Your task to perform on an android device: change text size in settings app Image 0: 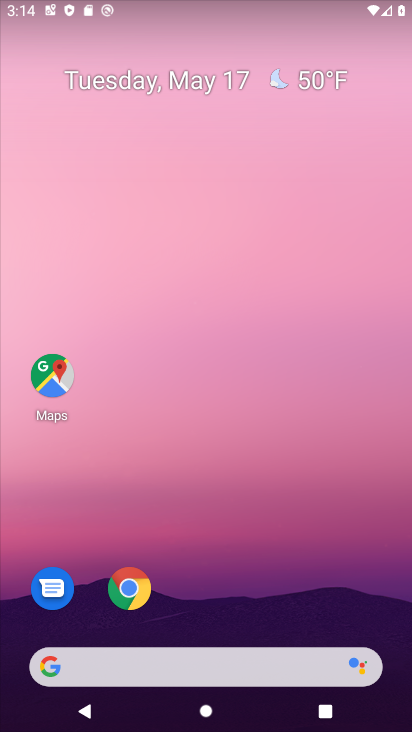
Step 0: drag from (211, 628) to (329, 107)
Your task to perform on an android device: change text size in settings app Image 1: 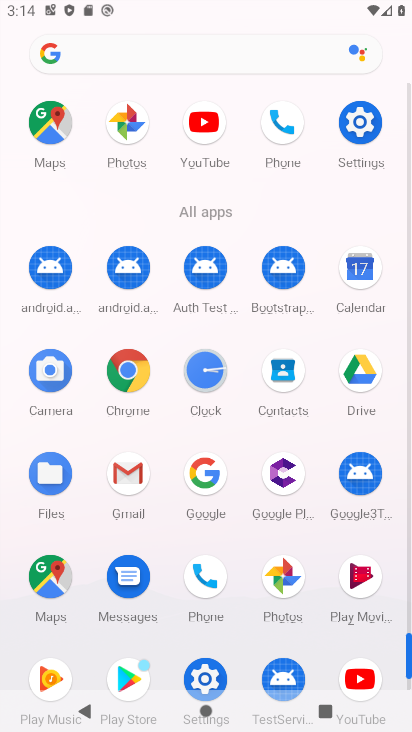
Step 1: drag from (213, 534) to (256, 306)
Your task to perform on an android device: change text size in settings app Image 2: 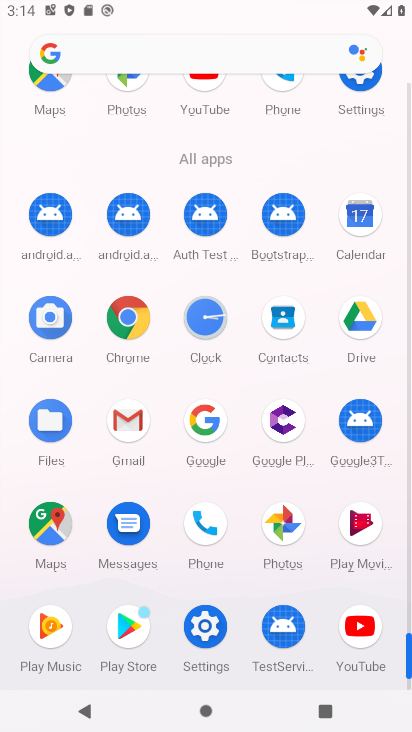
Step 2: click (202, 638)
Your task to perform on an android device: change text size in settings app Image 3: 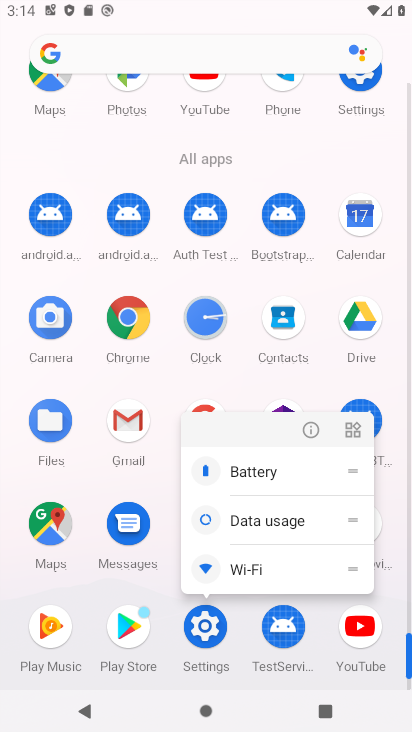
Step 3: click (204, 620)
Your task to perform on an android device: change text size in settings app Image 4: 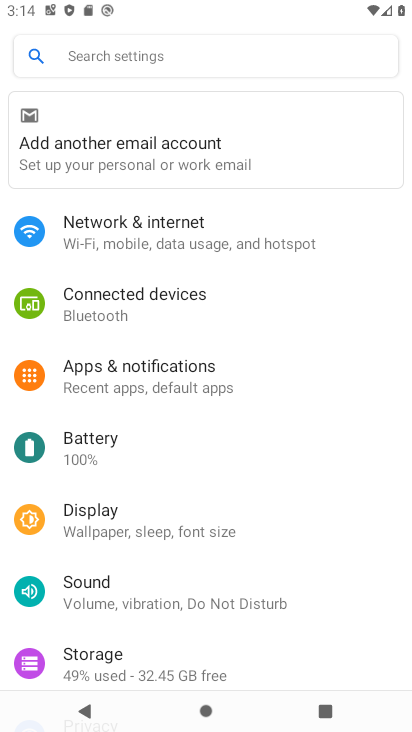
Step 4: drag from (154, 620) to (272, 557)
Your task to perform on an android device: change text size in settings app Image 5: 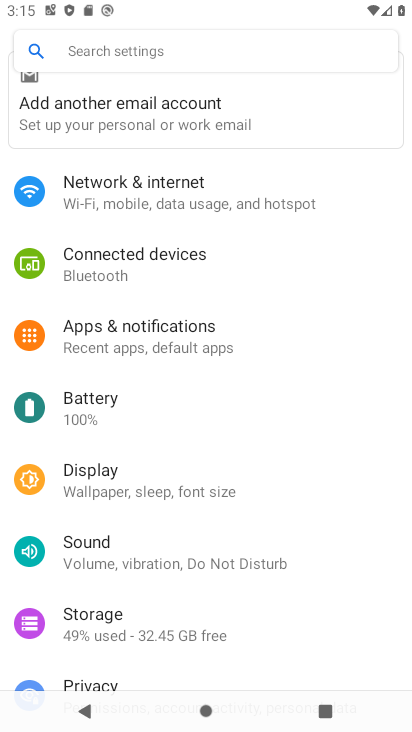
Step 5: click (134, 483)
Your task to perform on an android device: change text size in settings app Image 6: 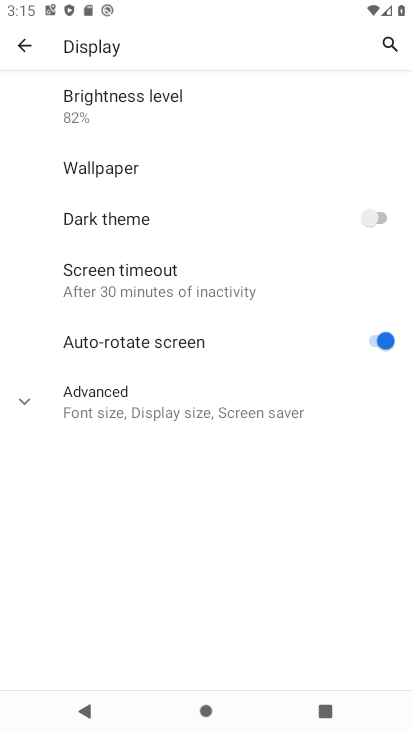
Step 6: click (177, 411)
Your task to perform on an android device: change text size in settings app Image 7: 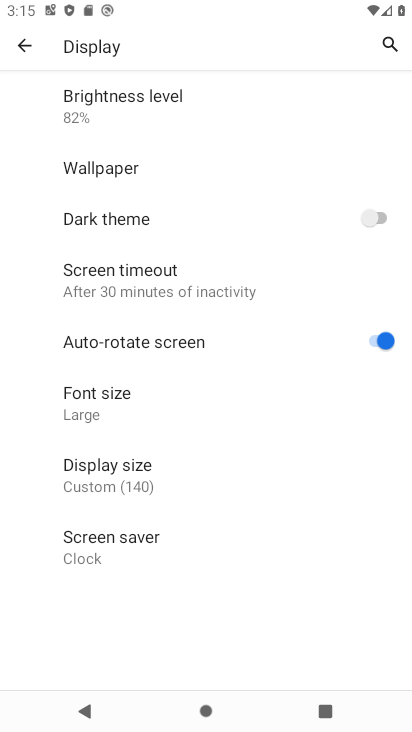
Step 7: click (177, 411)
Your task to perform on an android device: change text size in settings app Image 8: 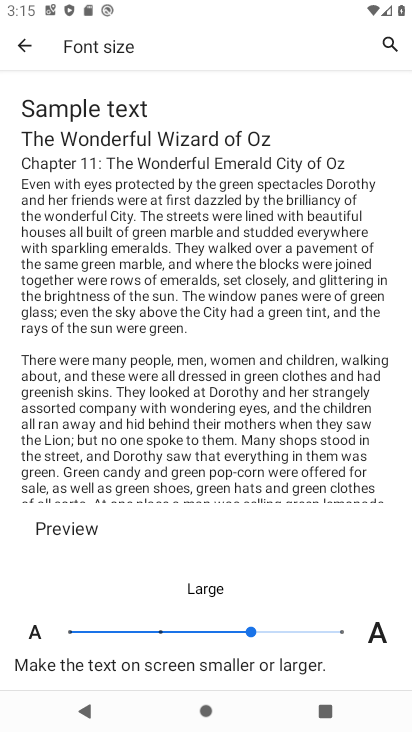
Step 8: task complete